Your task to perform on an android device: change the upload size in google photos Image 0: 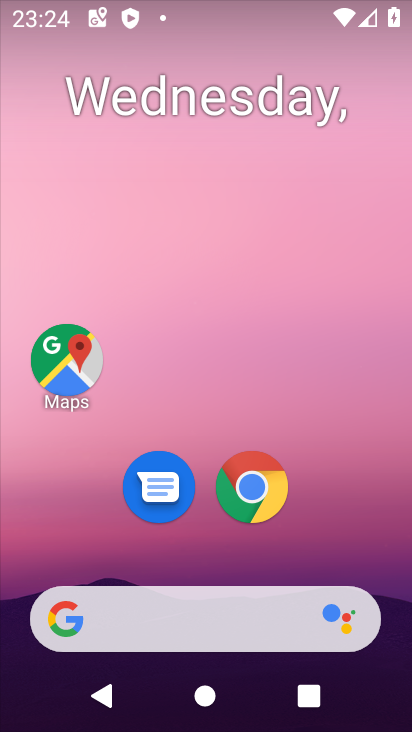
Step 0: drag from (353, 562) to (383, 0)
Your task to perform on an android device: change the upload size in google photos Image 1: 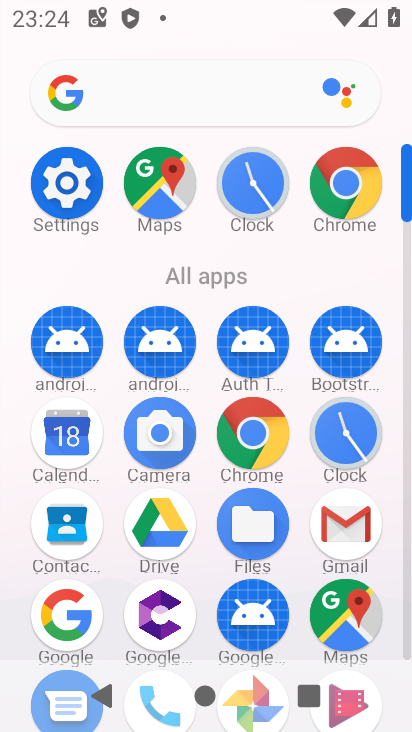
Step 1: click (407, 515)
Your task to perform on an android device: change the upload size in google photos Image 2: 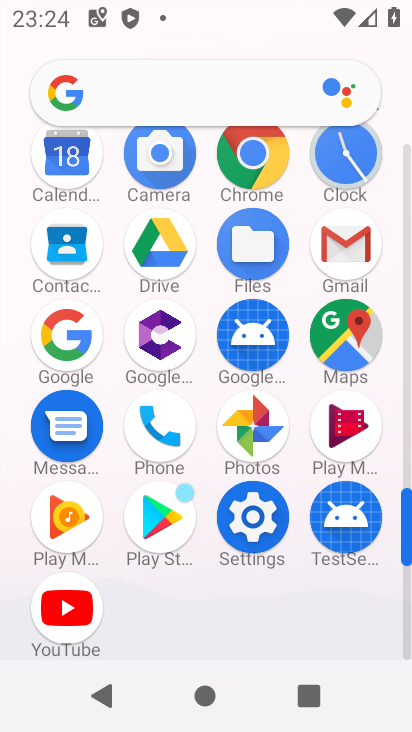
Step 2: click (256, 426)
Your task to perform on an android device: change the upload size in google photos Image 3: 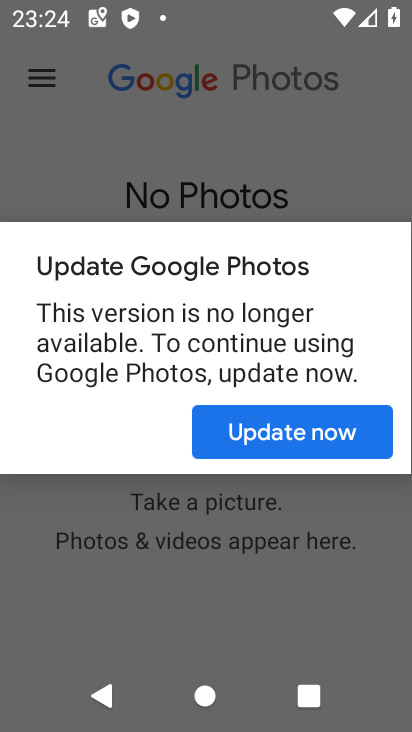
Step 3: click (255, 429)
Your task to perform on an android device: change the upload size in google photos Image 4: 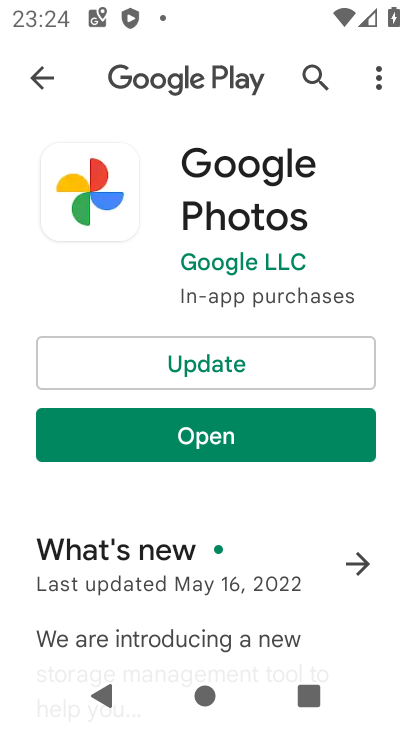
Step 4: click (172, 440)
Your task to perform on an android device: change the upload size in google photos Image 5: 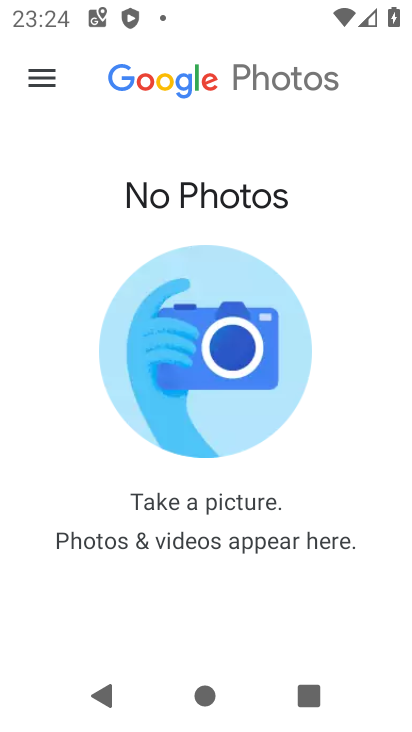
Step 5: click (41, 77)
Your task to perform on an android device: change the upload size in google photos Image 6: 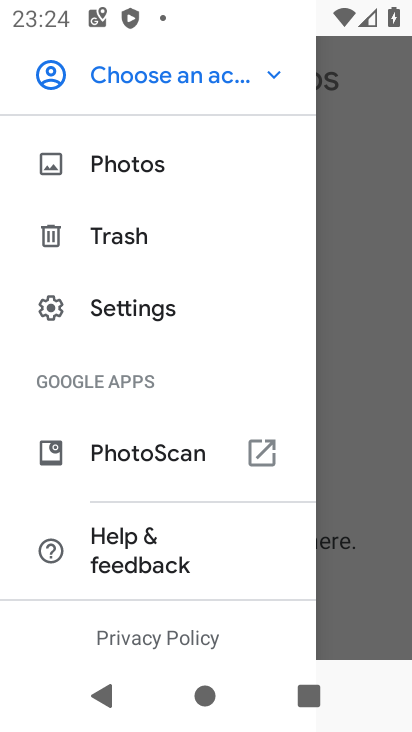
Step 6: click (130, 308)
Your task to perform on an android device: change the upload size in google photos Image 7: 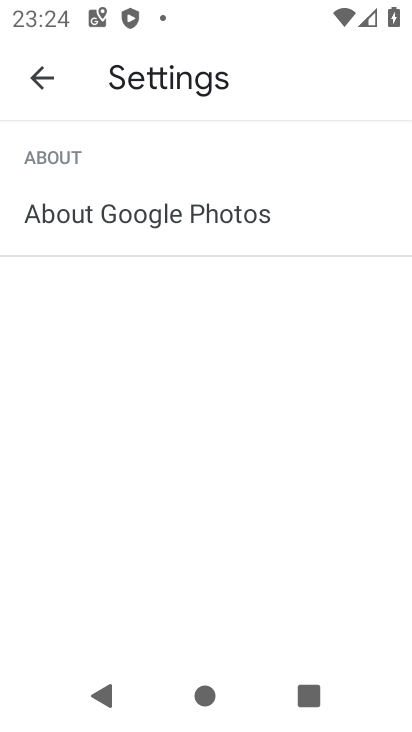
Step 7: task complete